Your task to perform on an android device: Open Youtube and go to "Your channel" Image 0: 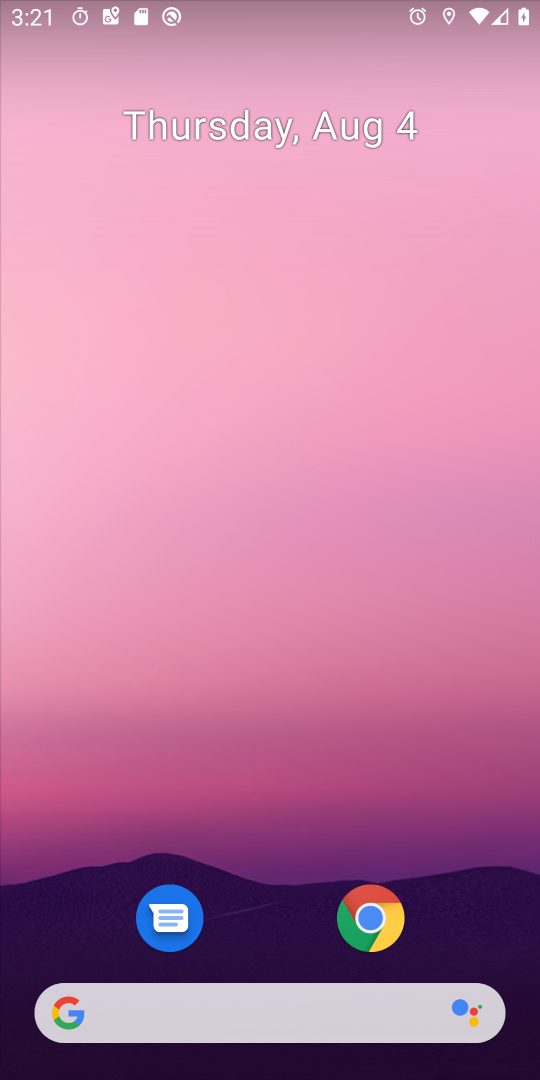
Step 0: drag from (275, 889) to (334, 190)
Your task to perform on an android device: Open Youtube and go to "Your channel" Image 1: 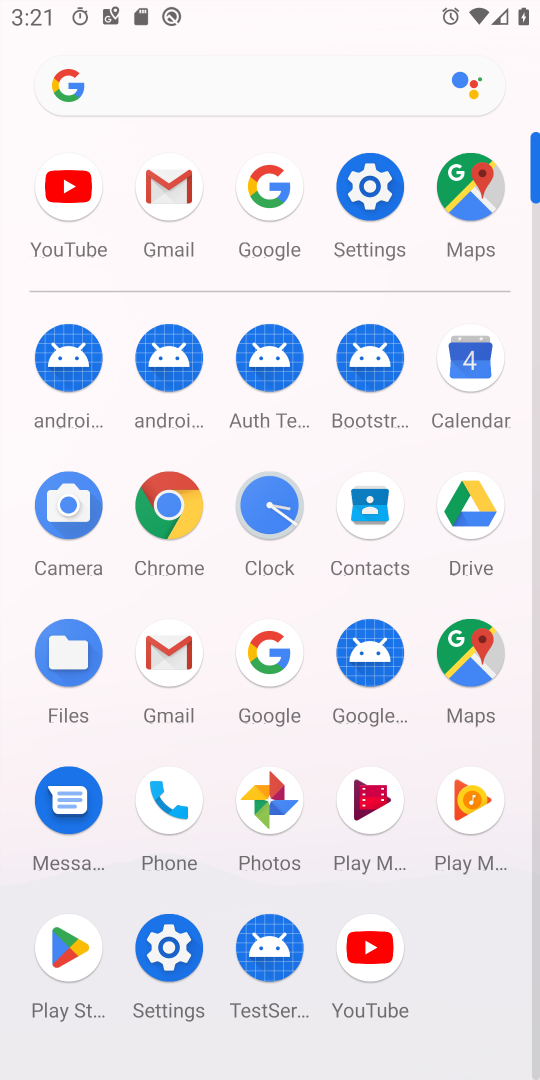
Step 1: click (371, 933)
Your task to perform on an android device: Open Youtube and go to "Your channel" Image 2: 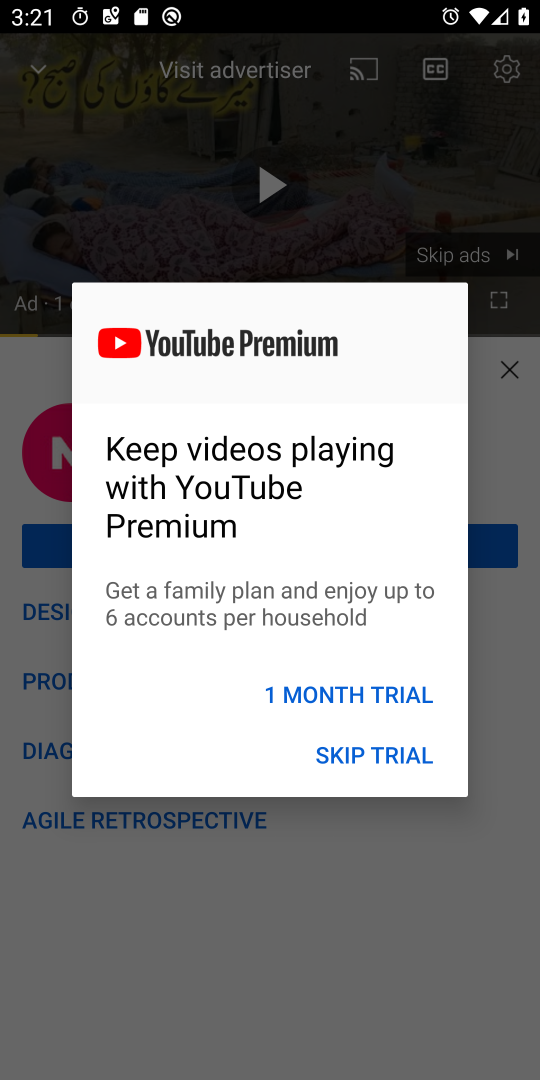
Step 2: press back button
Your task to perform on an android device: Open Youtube and go to "Your channel" Image 3: 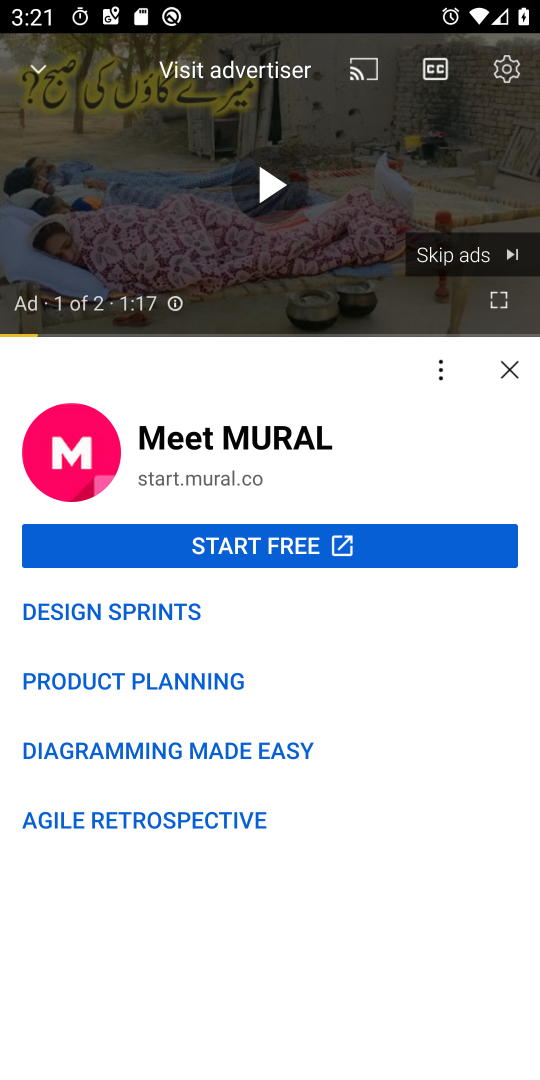
Step 3: press back button
Your task to perform on an android device: Open Youtube and go to "Your channel" Image 4: 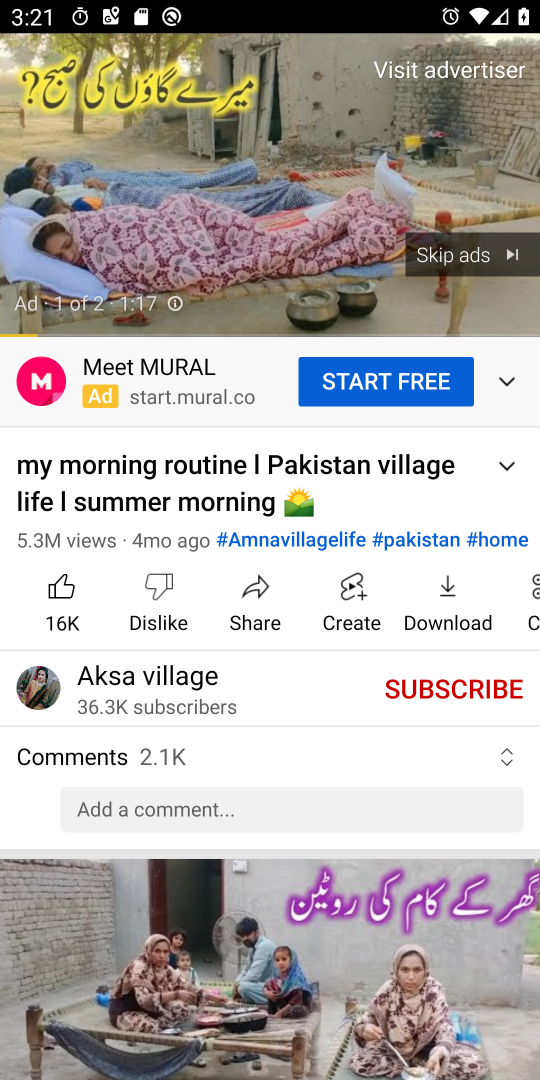
Step 4: press back button
Your task to perform on an android device: Open Youtube and go to "Your channel" Image 5: 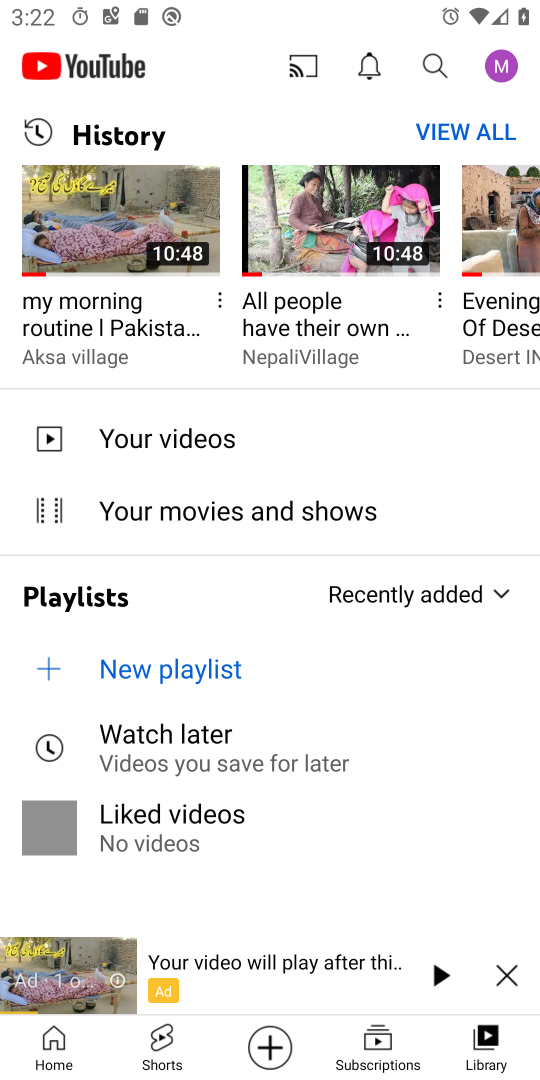
Step 5: click (515, 74)
Your task to perform on an android device: Open Youtube and go to "Your channel" Image 6: 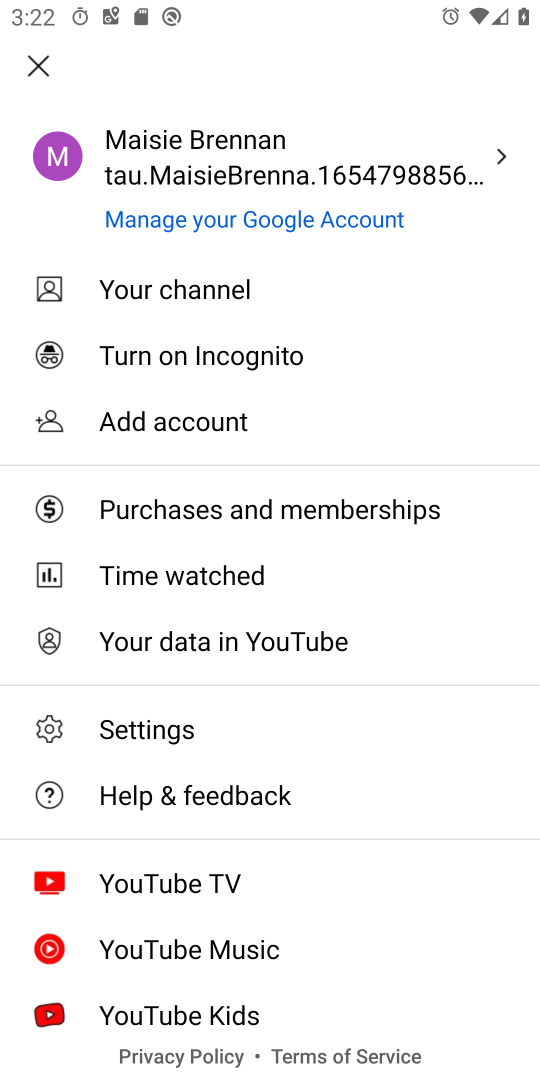
Step 6: click (152, 299)
Your task to perform on an android device: Open Youtube and go to "Your channel" Image 7: 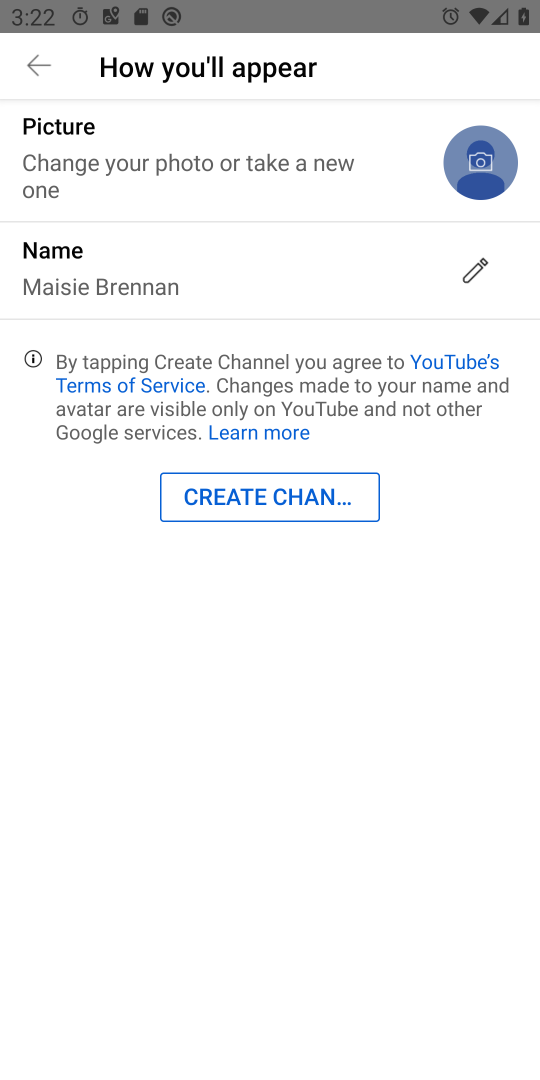
Step 7: task complete